Your task to perform on an android device: turn on notifications settings in the gmail app Image 0: 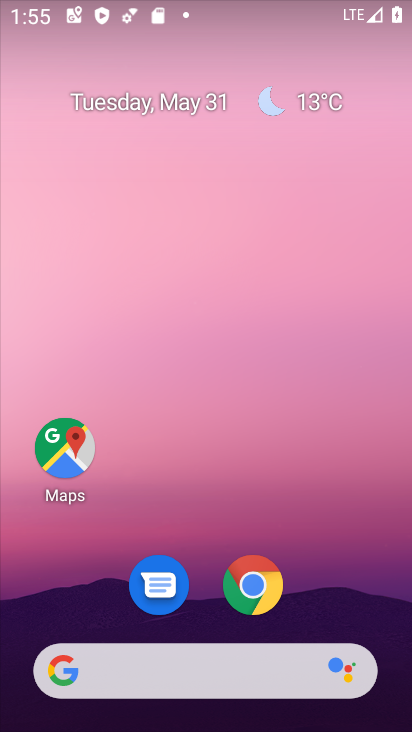
Step 0: drag from (245, 522) to (217, 91)
Your task to perform on an android device: turn on notifications settings in the gmail app Image 1: 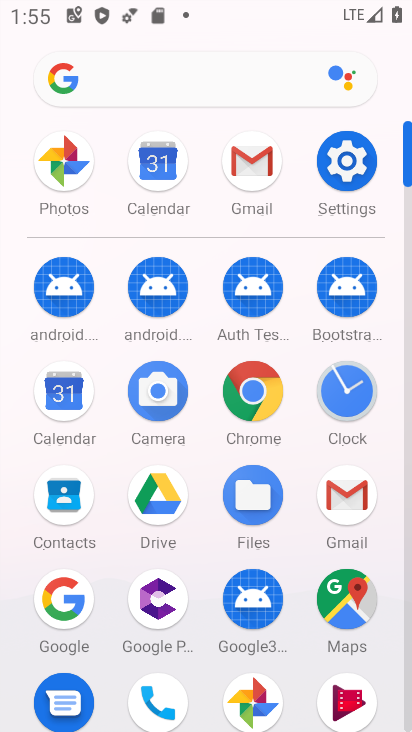
Step 1: click (257, 156)
Your task to perform on an android device: turn on notifications settings in the gmail app Image 2: 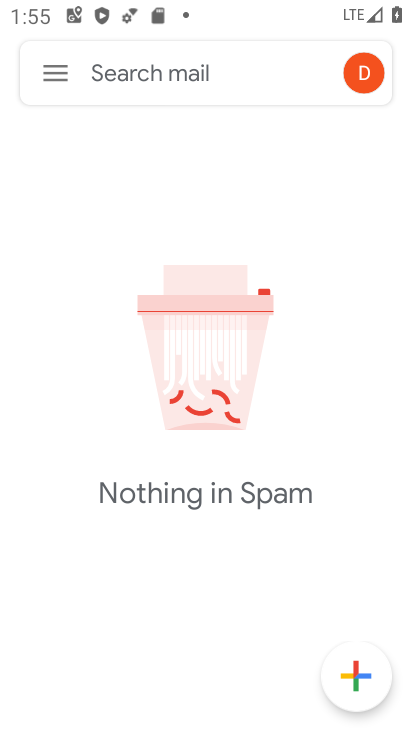
Step 2: click (59, 70)
Your task to perform on an android device: turn on notifications settings in the gmail app Image 3: 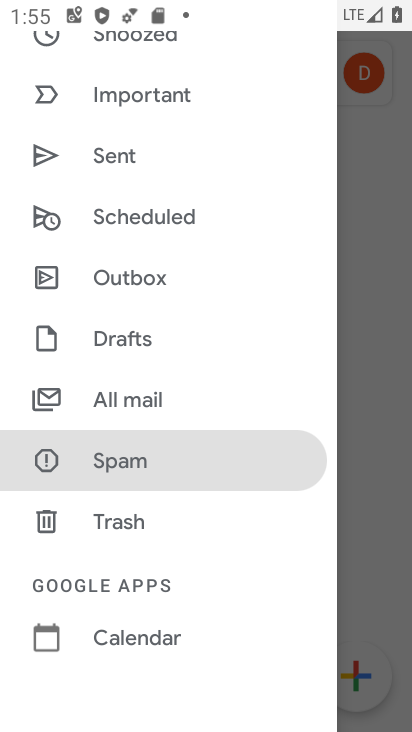
Step 3: drag from (190, 514) to (169, 193)
Your task to perform on an android device: turn on notifications settings in the gmail app Image 4: 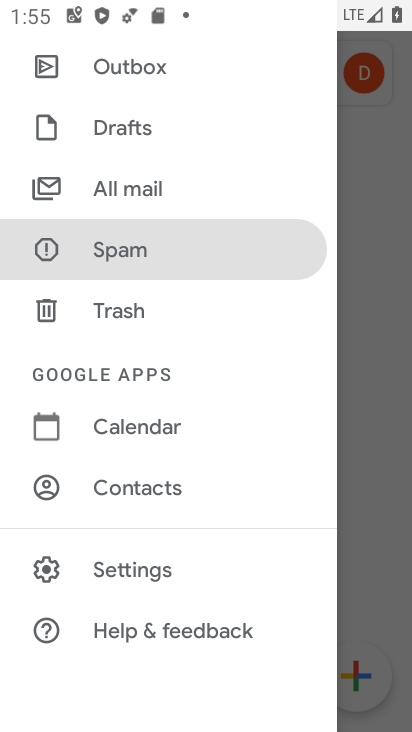
Step 4: click (164, 563)
Your task to perform on an android device: turn on notifications settings in the gmail app Image 5: 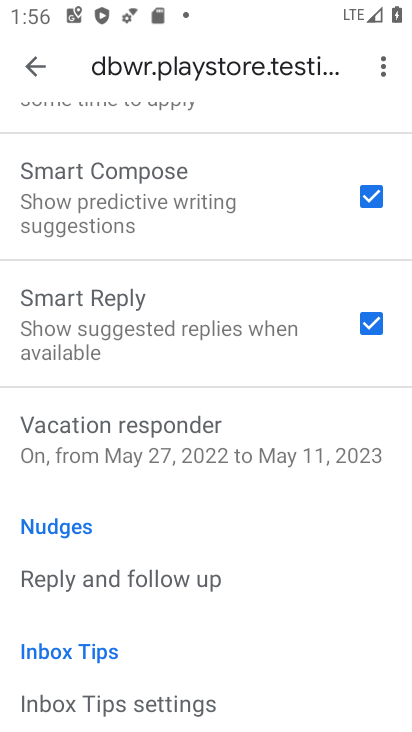
Step 5: drag from (251, 241) to (289, 643)
Your task to perform on an android device: turn on notifications settings in the gmail app Image 6: 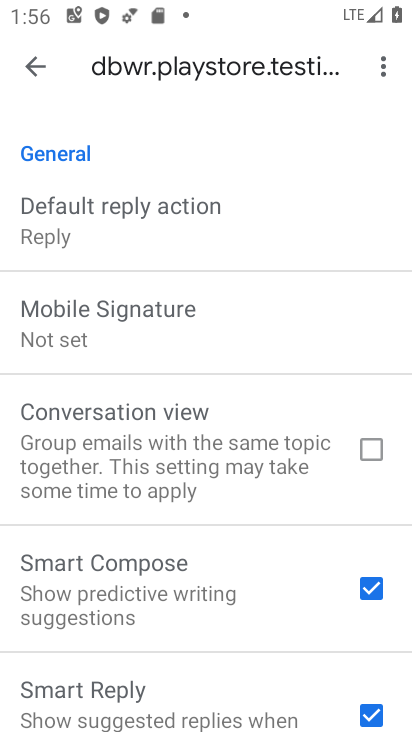
Step 6: drag from (256, 256) to (247, 502)
Your task to perform on an android device: turn on notifications settings in the gmail app Image 7: 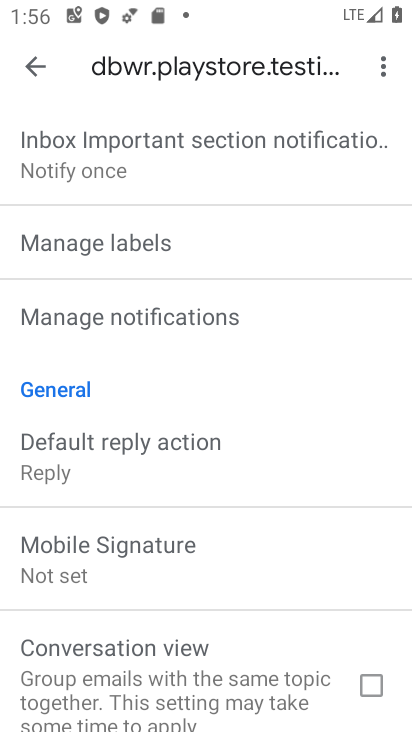
Step 7: click (209, 308)
Your task to perform on an android device: turn on notifications settings in the gmail app Image 8: 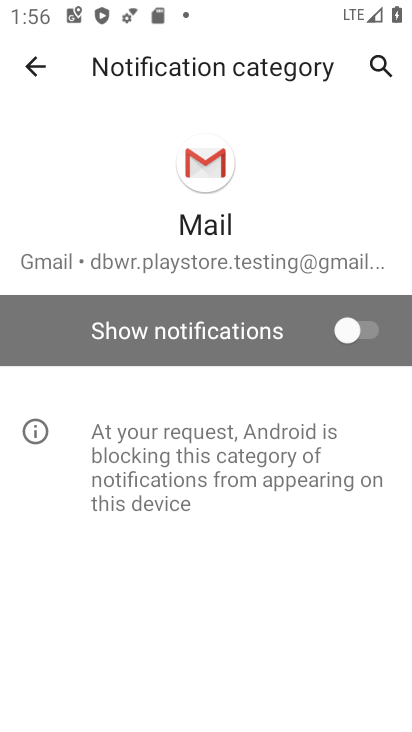
Step 8: click (355, 328)
Your task to perform on an android device: turn on notifications settings in the gmail app Image 9: 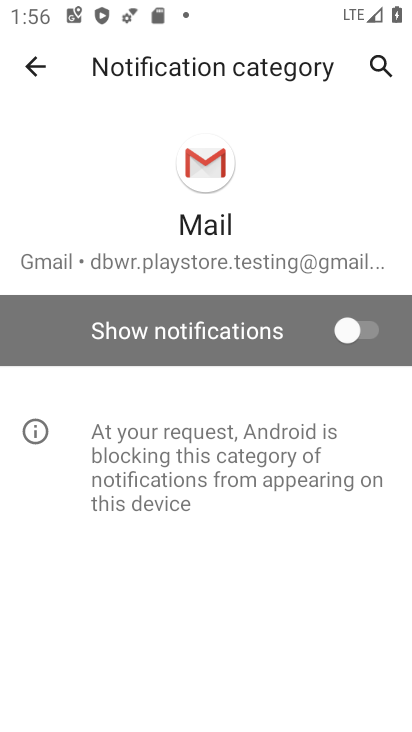
Step 9: click (355, 326)
Your task to perform on an android device: turn on notifications settings in the gmail app Image 10: 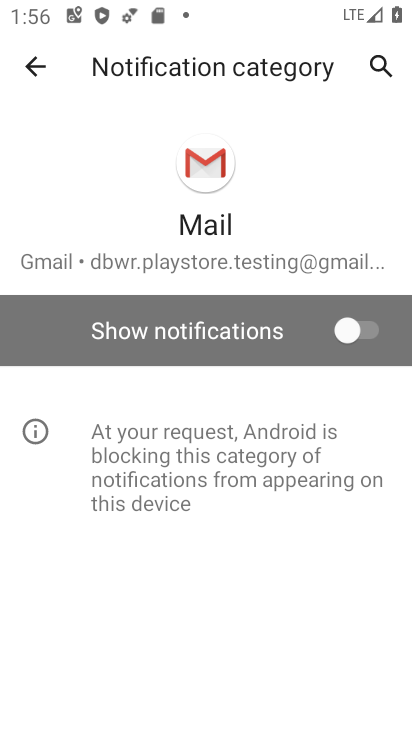
Step 10: click (32, 61)
Your task to perform on an android device: turn on notifications settings in the gmail app Image 11: 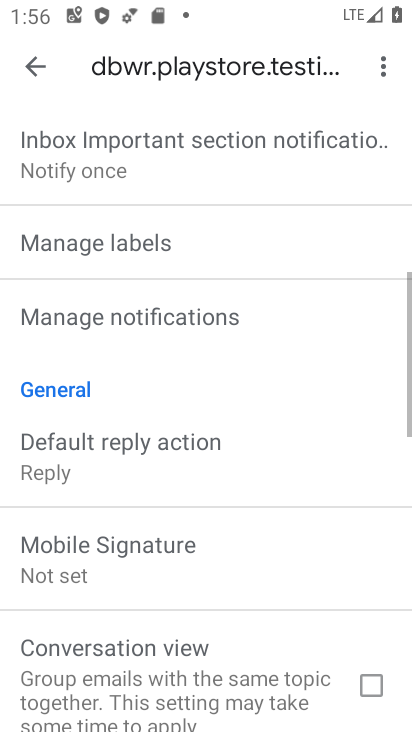
Step 11: click (32, 61)
Your task to perform on an android device: turn on notifications settings in the gmail app Image 12: 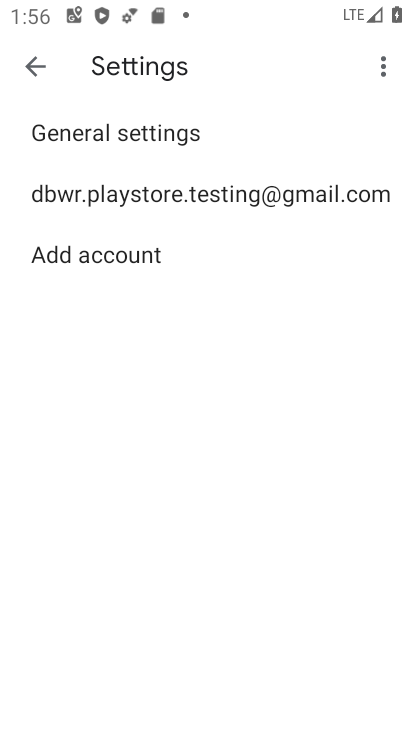
Step 12: click (89, 126)
Your task to perform on an android device: turn on notifications settings in the gmail app Image 13: 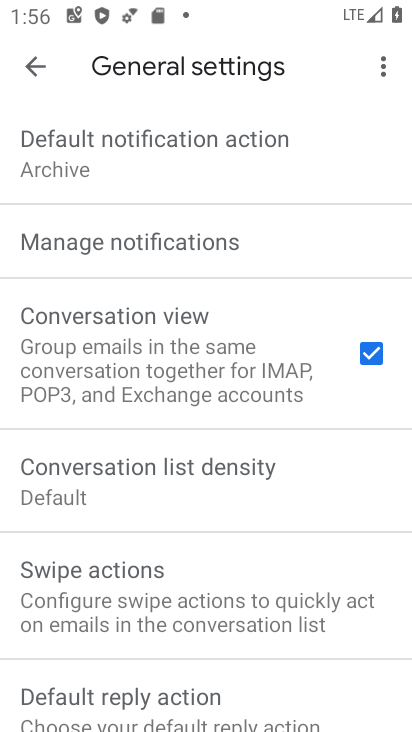
Step 13: click (193, 245)
Your task to perform on an android device: turn on notifications settings in the gmail app Image 14: 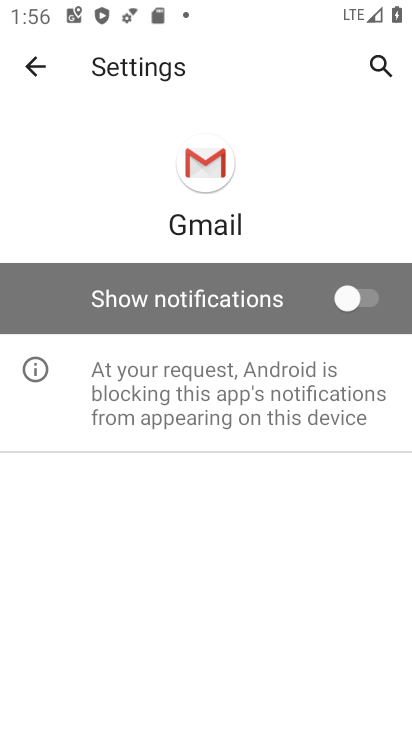
Step 14: click (354, 303)
Your task to perform on an android device: turn on notifications settings in the gmail app Image 15: 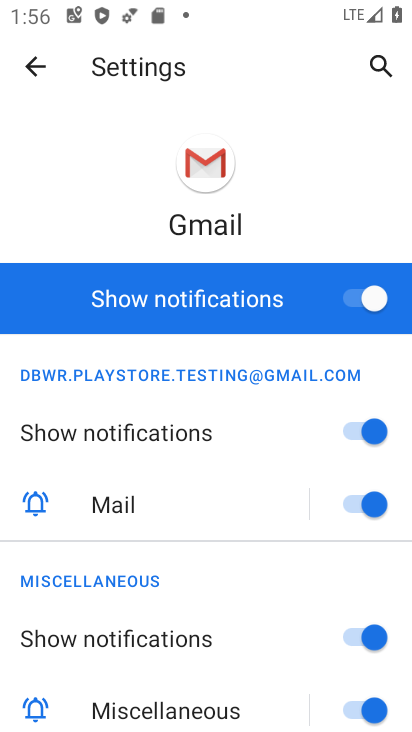
Step 15: task complete